Your task to perform on an android device: Open Amazon Image 0: 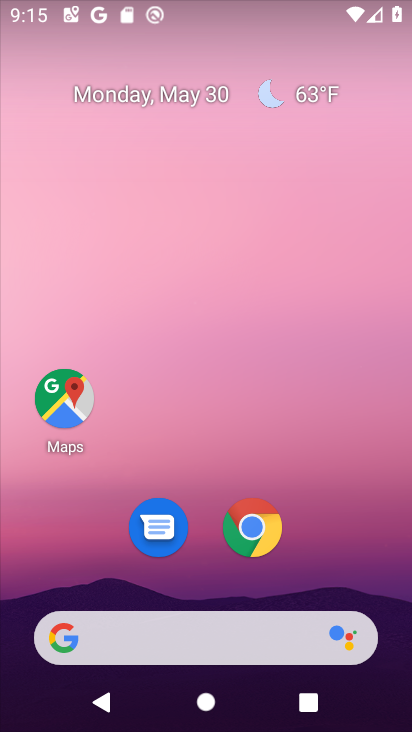
Step 0: click (254, 537)
Your task to perform on an android device: Open Amazon Image 1: 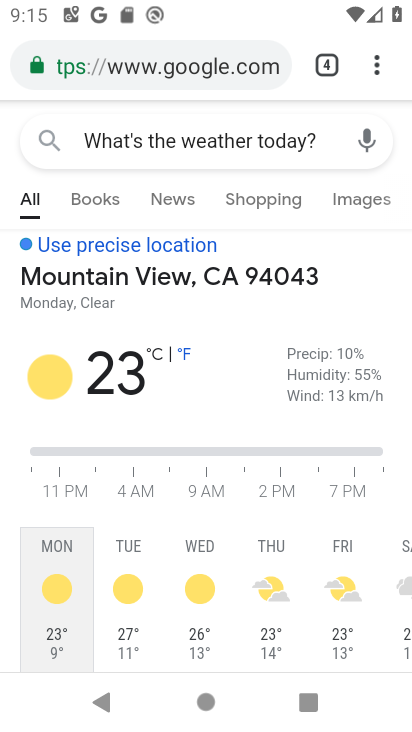
Step 1: click (368, 66)
Your task to perform on an android device: Open Amazon Image 2: 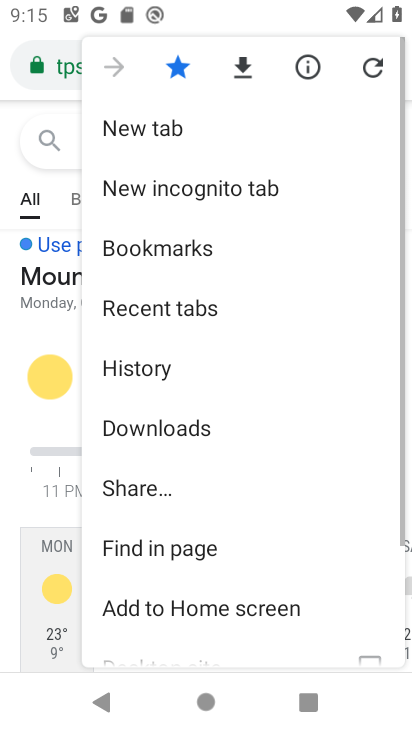
Step 2: click (205, 114)
Your task to perform on an android device: Open Amazon Image 3: 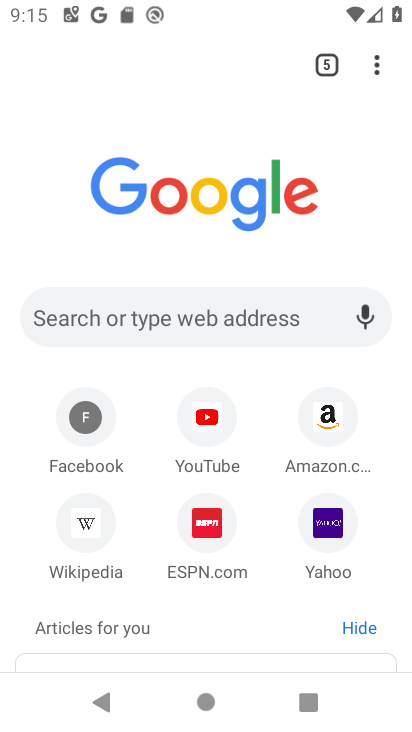
Step 3: click (329, 428)
Your task to perform on an android device: Open Amazon Image 4: 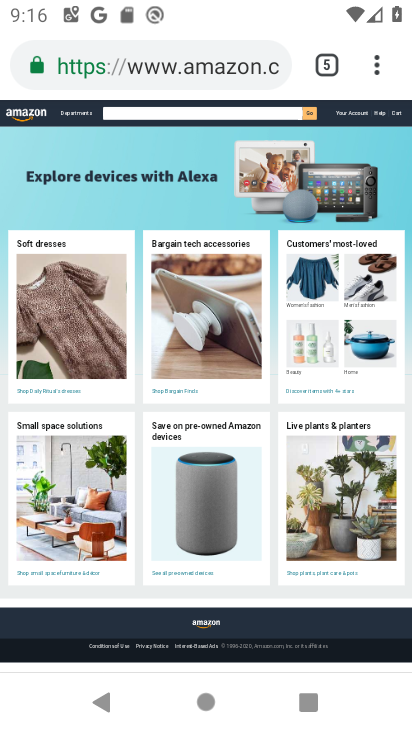
Step 4: task complete